Your task to perform on an android device: What's the weather today? Image 0: 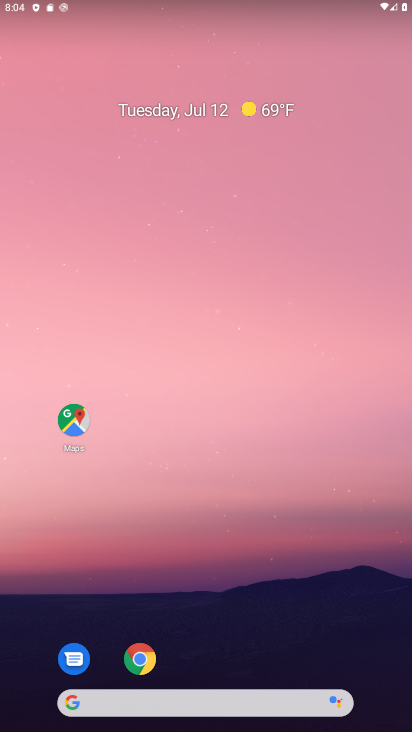
Step 0: drag from (214, 697) to (210, 177)
Your task to perform on an android device: What's the weather today? Image 1: 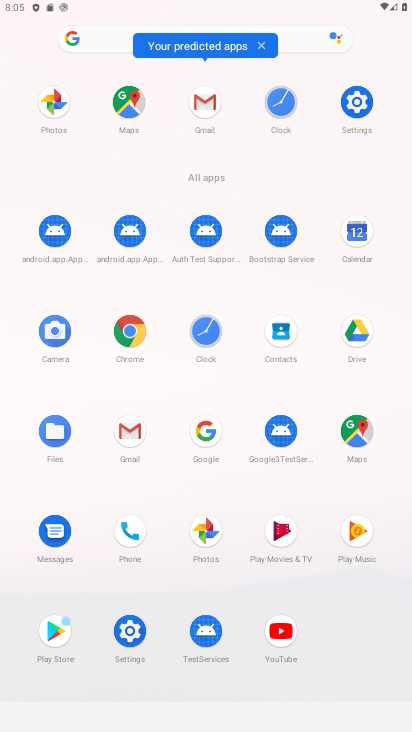
Step 1: click (212, 429)
Your task to perform on an android device: What's the weather today? Image 2: 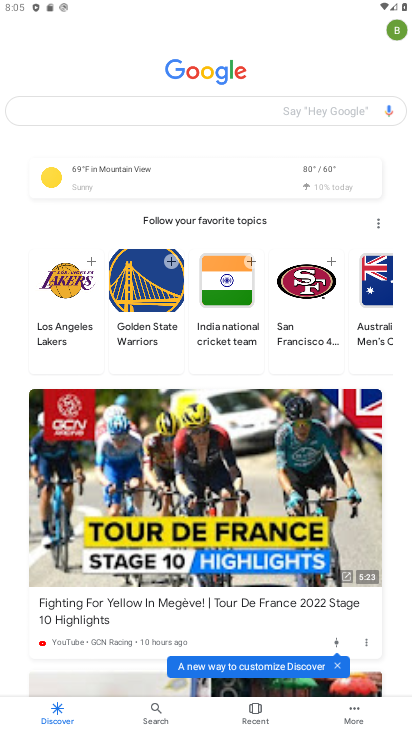
Step 2: click (108, 172)
Your task to perform on an android device: What's the weather today? Image 3: 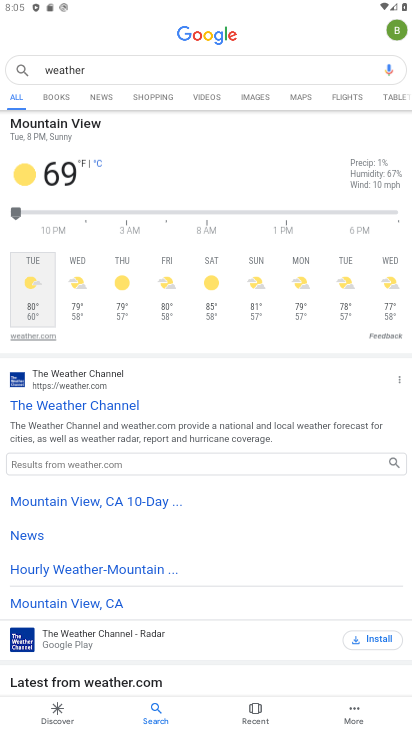
Step 3: task complete